Your task to perform on an android device: Go to internet settings Image 0: 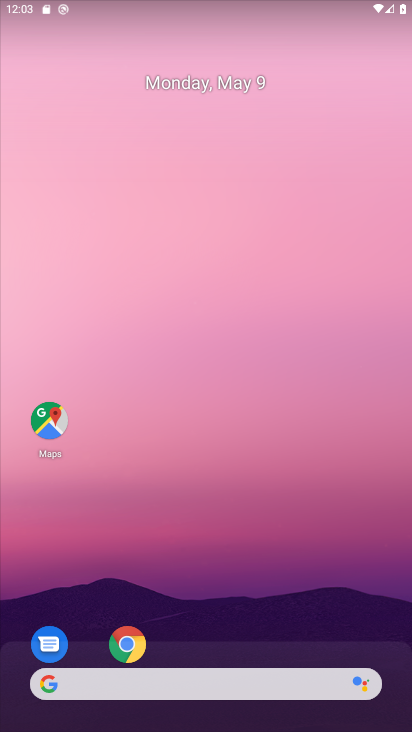
Step 0: drag from (360, 539) to (147, 43)
Your task to perform on an android device: Go to internet settings Image 1: 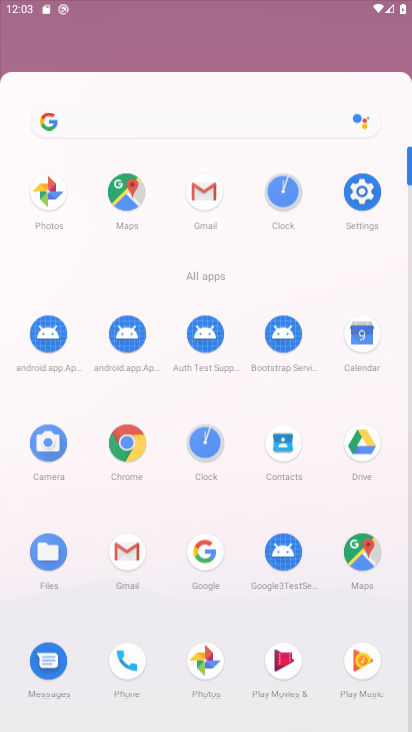
Step 1: drag from (297, 540) to (195, 150)
Your task to perform on an android device: Go to internet settings Image 2: 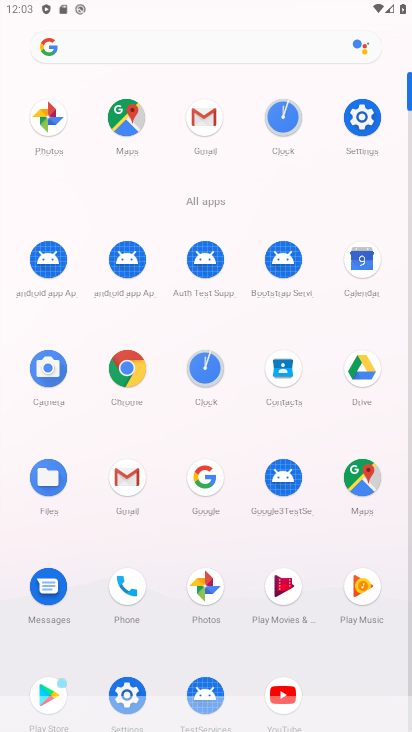
Step 2: click (366, 114)
Your task to perform on an android device: Go to internet settings Image 3: 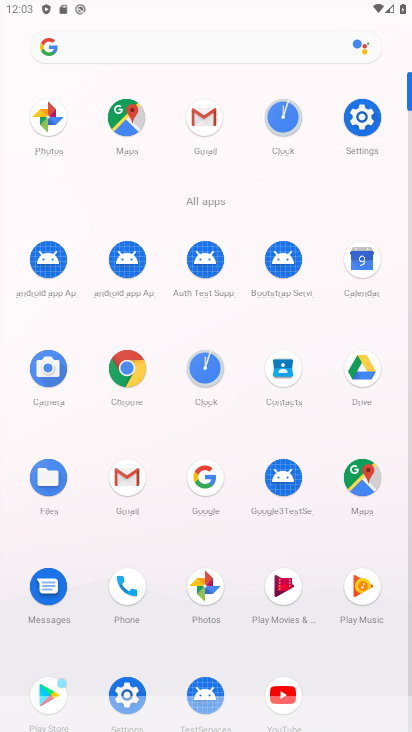
Step 3: click (365, 115)
Your task to perform on an android device: Go to internet settings Image 4: 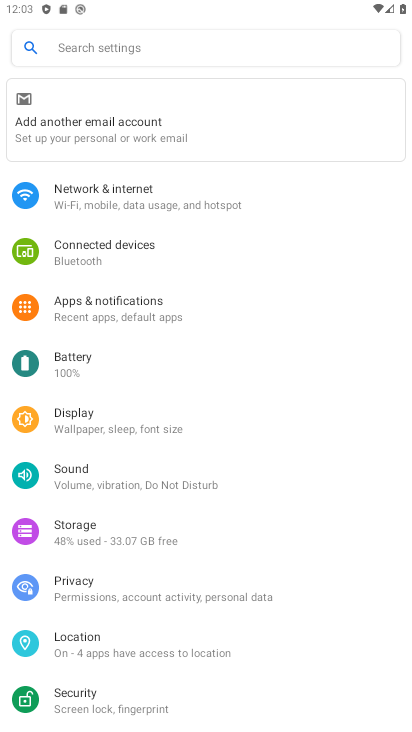
Step 4: click (97, 198)
Your task to perform on an android device: Go to internet settings Image 5: 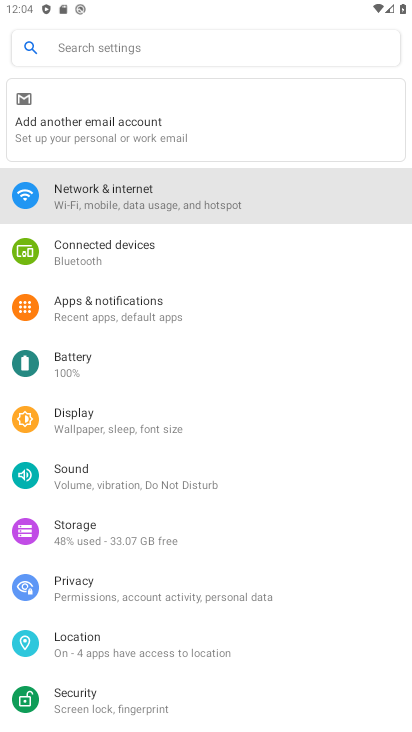
Step 5: click (99, 197)
Your task to perform on an android device: Go to internet settings Image 6: 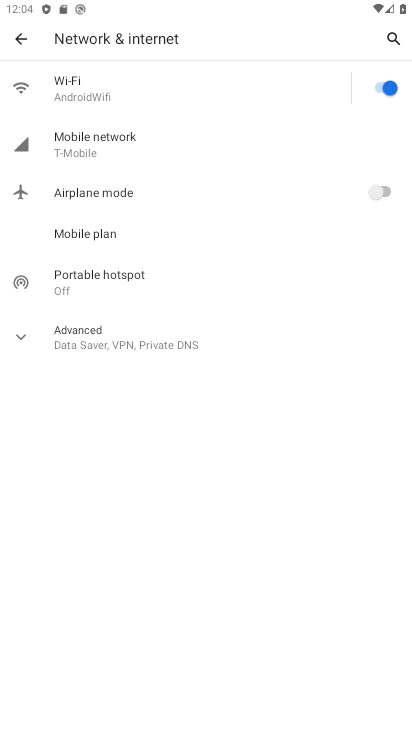
Step 6: task complete